Your task to perform on an android device: Go to display settings Image 0: 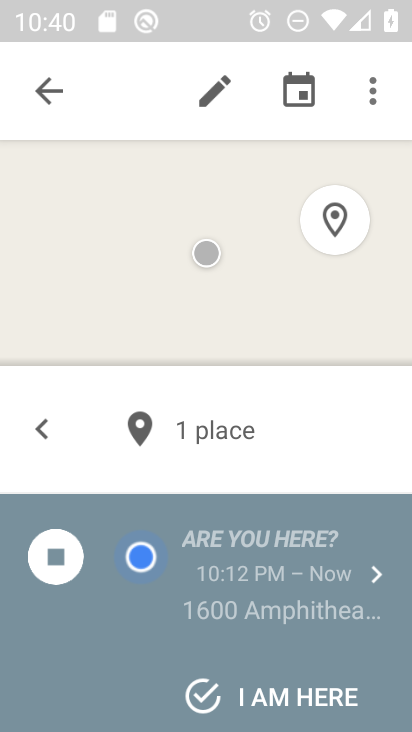
Step 0: press home button
Your task to perform on an android device: Go to display settings Image 1: 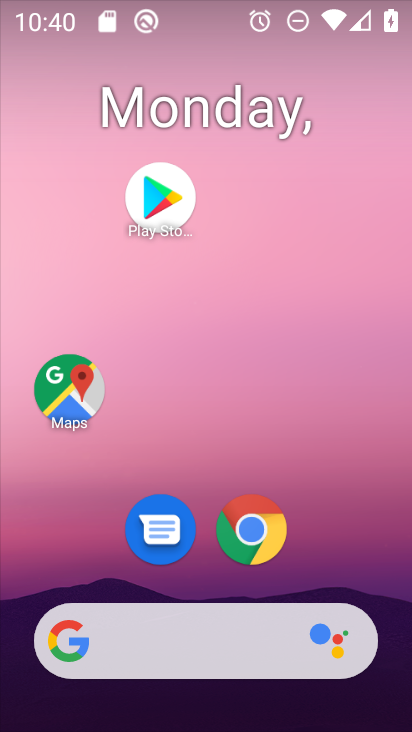
Step 1: drag from (338, 534) to (245, 53)
Your task to perform on an android device: Go to display settings Image 2: 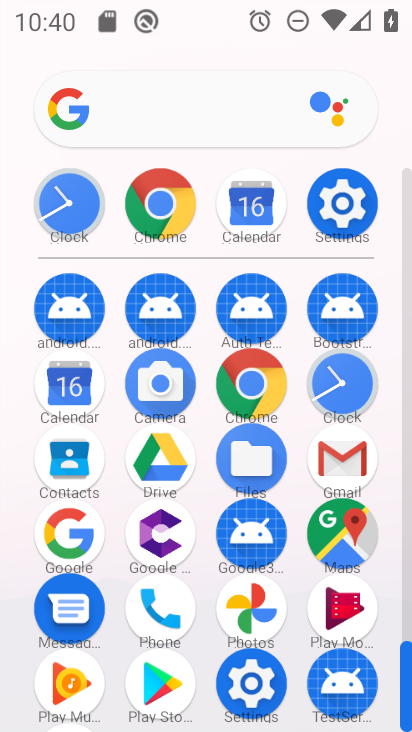
Step 2: click (342, 201)
Your task to perform on an android device: Go to display settings Image 3: 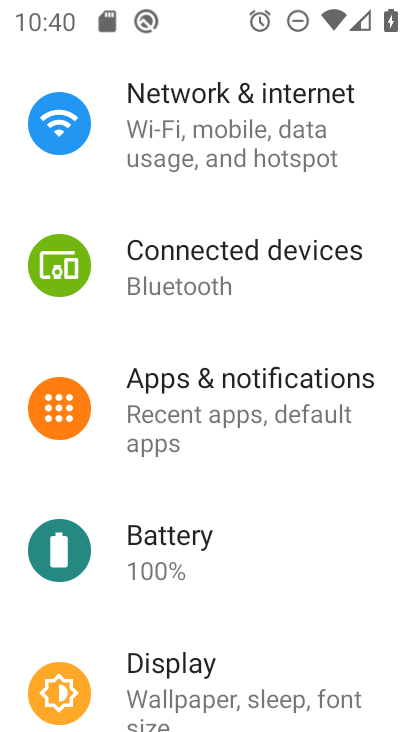
Step 3: drag from (215, 469) to (131, 150)
Your task to perform on an android device: Go to display settings Image 4: 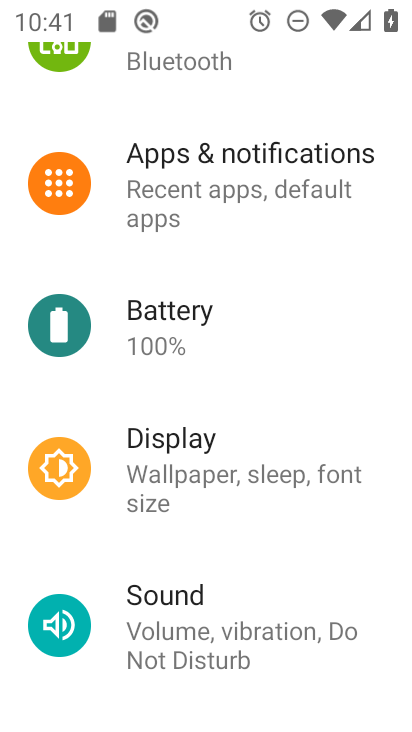
Step 4: click (175, 435)
Your task to perform on an android device: Go to display settings Image 5: 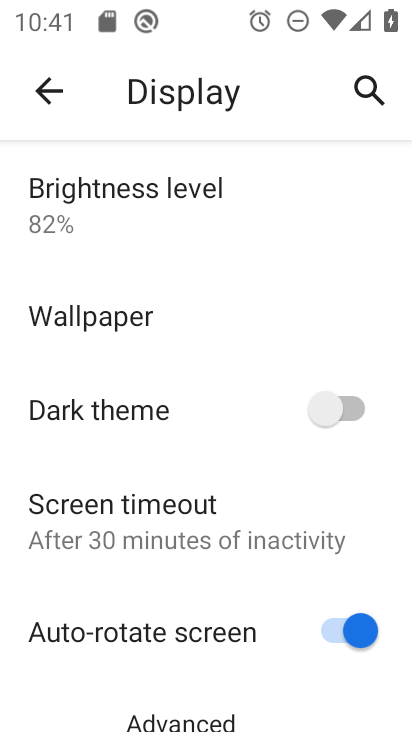
Step 5: task complete